Your task to perform on an android device: Open the phone app and click the voicemail tab. Image 0: 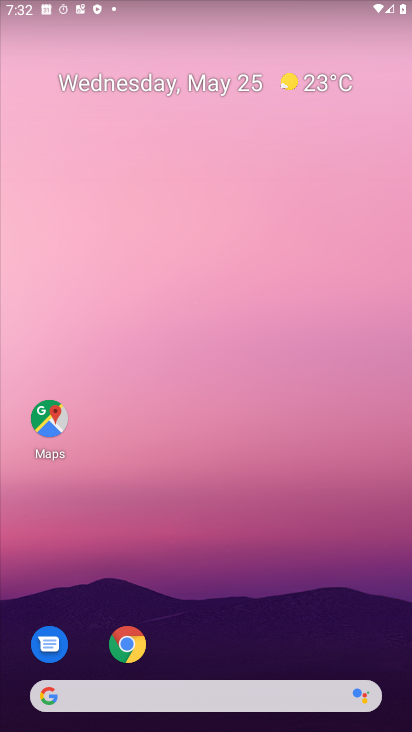
Step 0: drag from (290, 712) to (204, 132)
Your task to perform on an android device: Open the phone app and click the voicemail tab. Image 1: 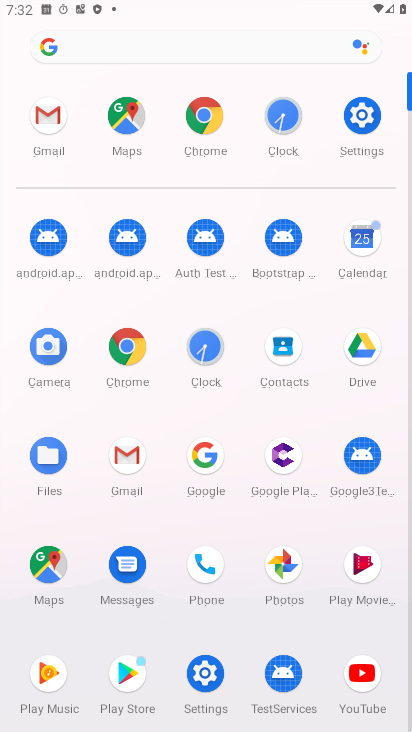
Step 1: click (206, 560)
Your task to perform on an android device: Open the phone app and click the voicemail tab. Image 2: 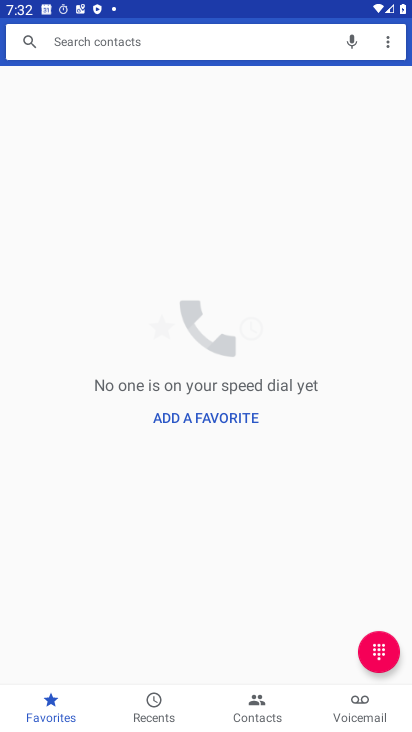
Step 2: click (360, 710)
Your task to perform on an android device: Open the phone app and click the voicemail tab. Image 3: 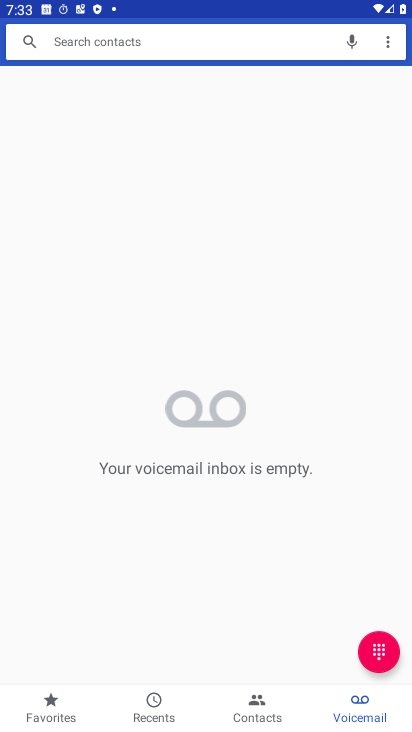
Step 3: task complete